Your task to perform on an android device: set an alarm Image 0: 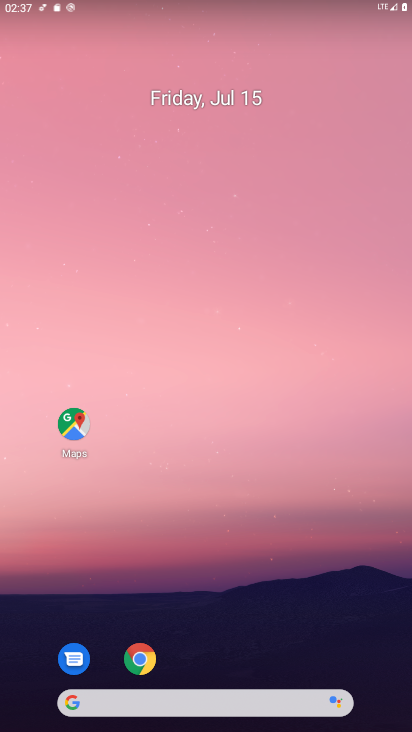
Step 0: drag from (227, 619) to (237, 135)
Your task to perform on an android device: set an alarm Image 1: 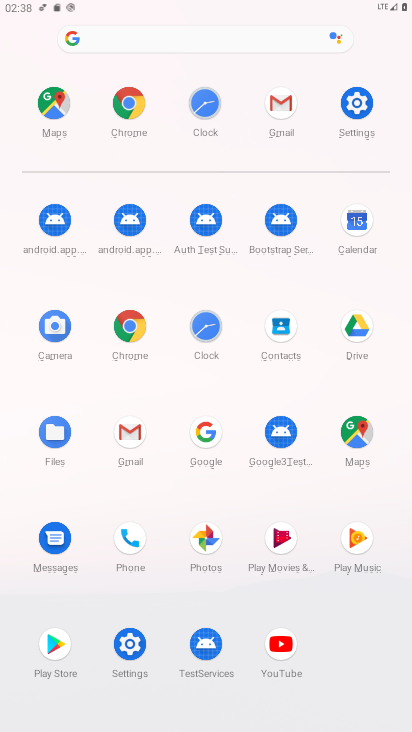
Step 1: click (210, 329)
Your task to perform on an android device: set an alarm Image 2: 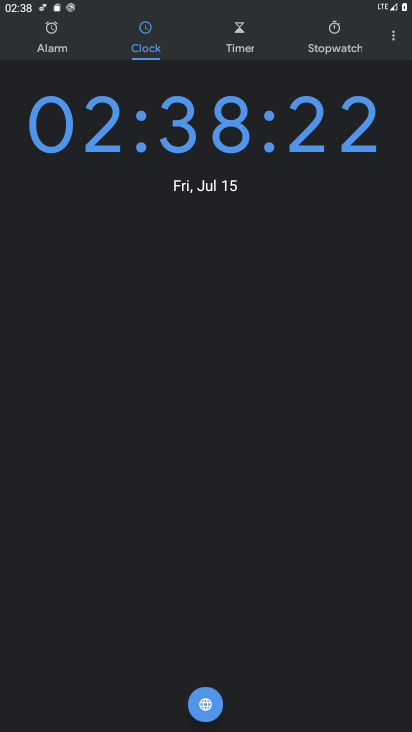
Step 2: click (55, 42)
Your task to perform on an android device: set an alarm Image 3: 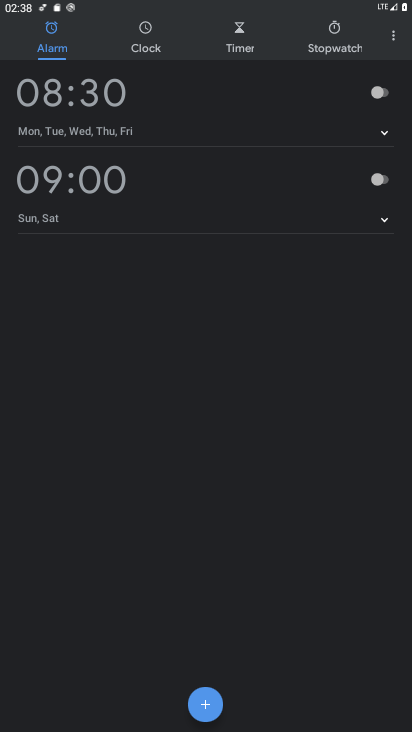
Step 3: click (389, 105)
Your task to perform on an android device: set an alarm Image 4: 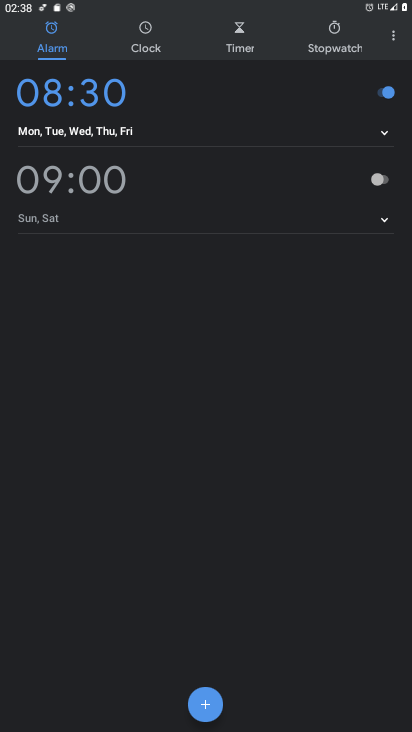
Step 4: task complete